Your task to perform on an android device: Go to Google maps Image 0: 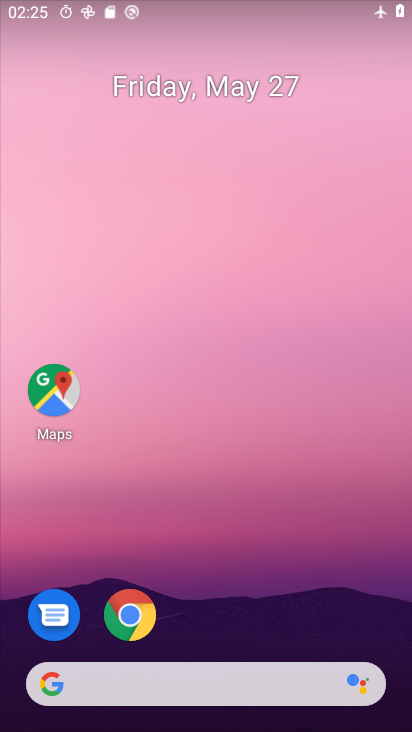
Step 0: drag from (379, 629) to (377, 275)
Your task to perform on an android device: Go to Google maps Image 1: 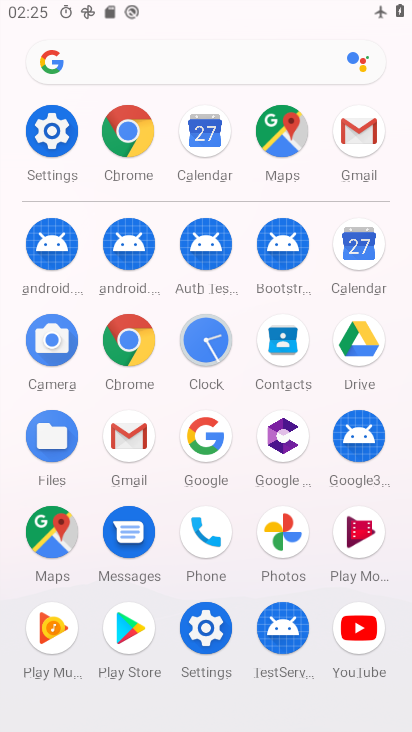
Step 1: click (50, 546)
Your task to perform on an android device: Go to Google maps Image 2: 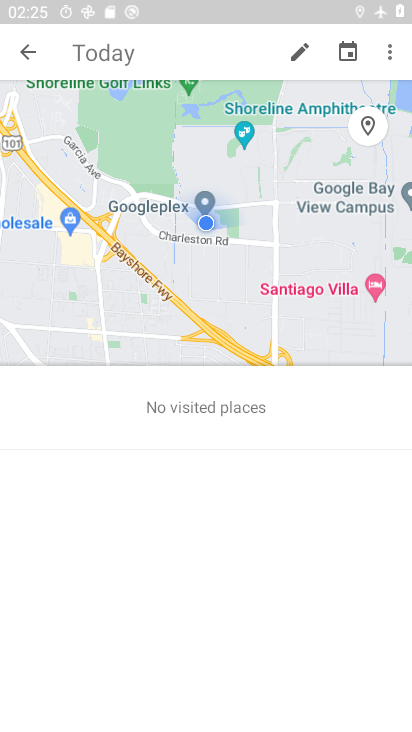
Step 2: task complete